Your task to perform on an android device: set the stopwatch Image 0: 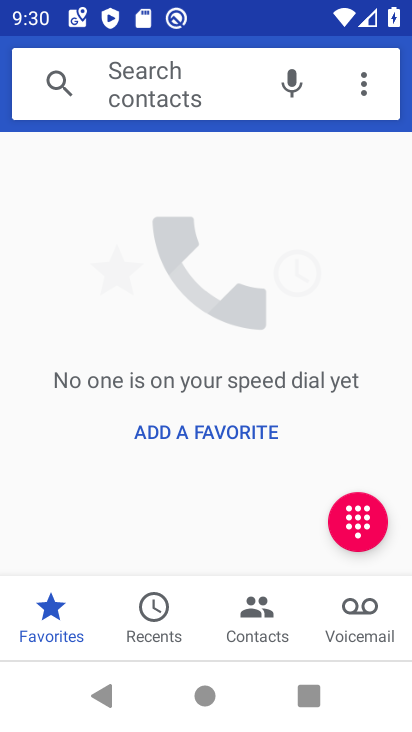
Step 0: press home button
Your task to perform on an android device: set the stopwatch Image 1: 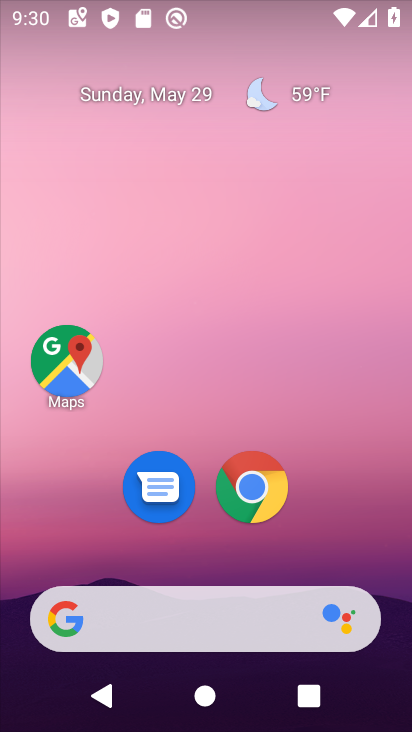
Step 1: drag from (138, 708) to (209, 111)
Your task to perform on an android device: set the stopwatch Image 2: 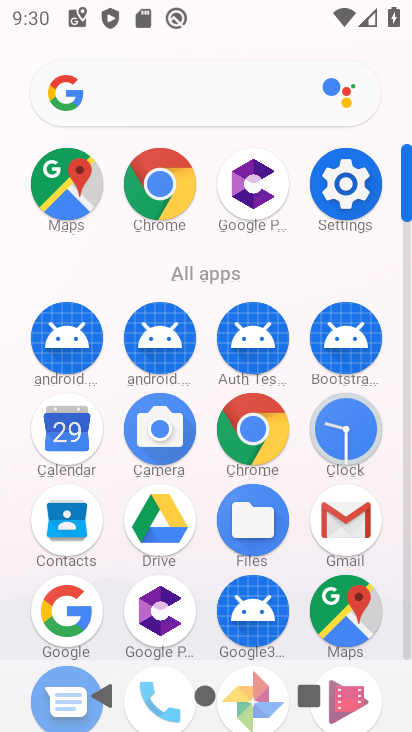
Step 2: click (341, 433)
Your task to perform on an android device: set the stopwatch Image 3: 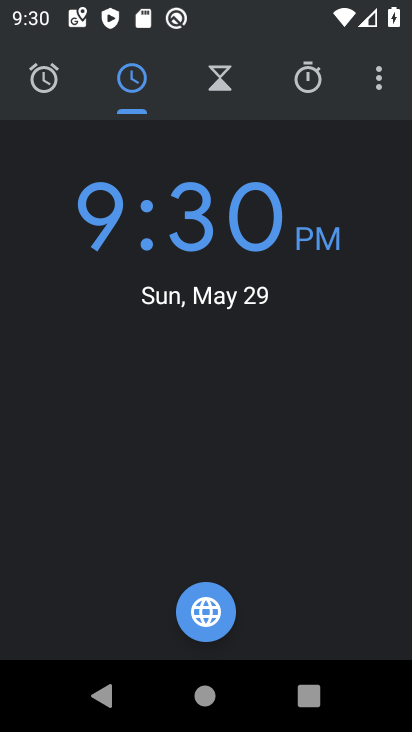
Step 3: click (308, 83)
Your task to perform on an android device: set the stopwatch Image 4: 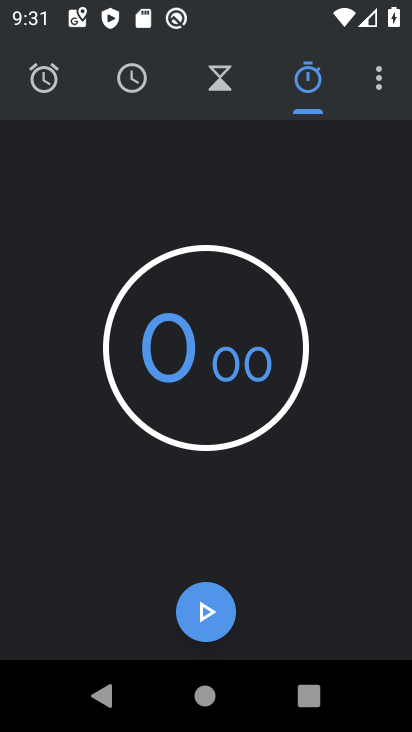
Step 4: click (196, 604)
Your task to perform on an android device: set the stopwatch Image 5: 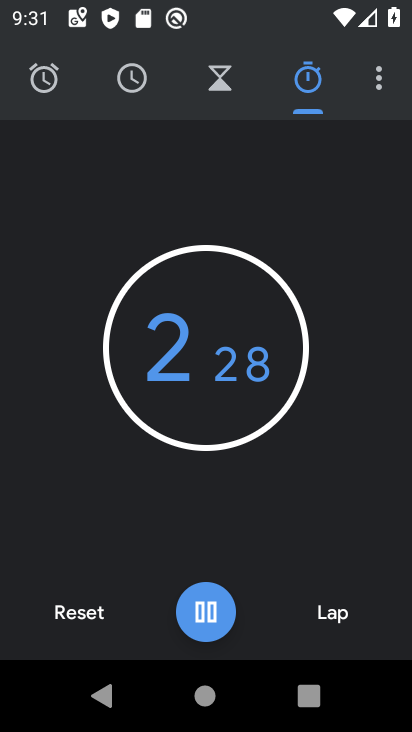
Step 5: click (205, 623)
Your task to perform on an android device: set the stopwatch Image 6: 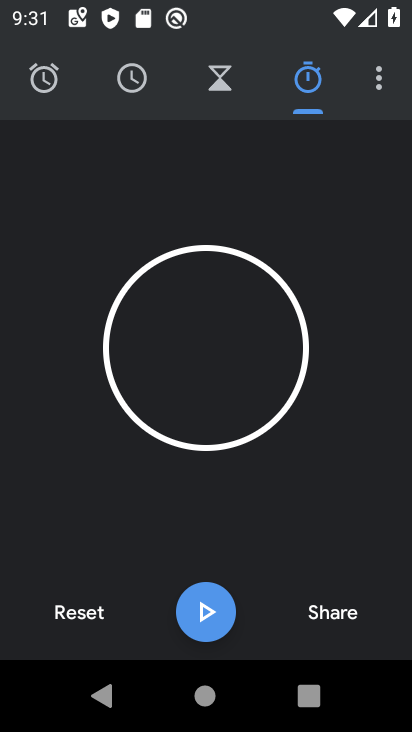
Step 6: task complete